Your task to perform on an android device: Do I have any events today? Image 0: 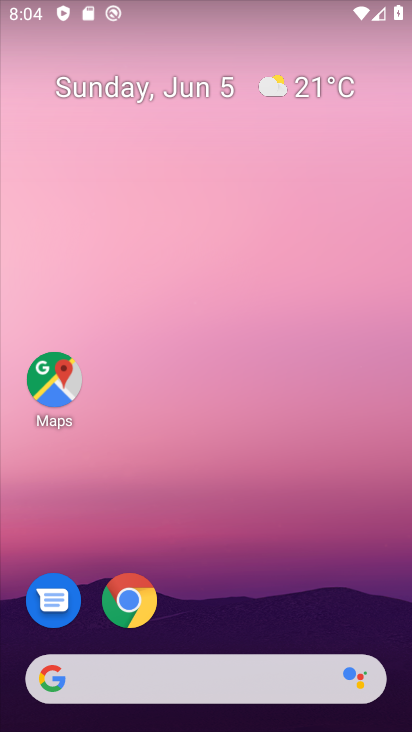
Step 0: drag from (245, 583) to (242, 9)
Your task to perform on an android device: Do I have any events today? Image 1: 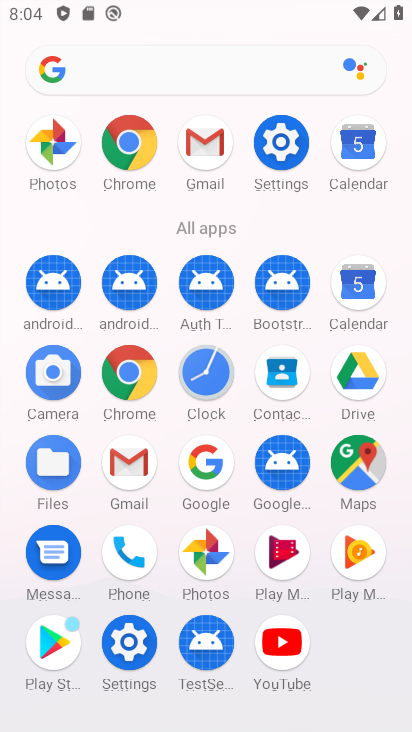
Step 1: click (366, 296)
Your task to perform on an android device: Do I have any events today? Image 2: 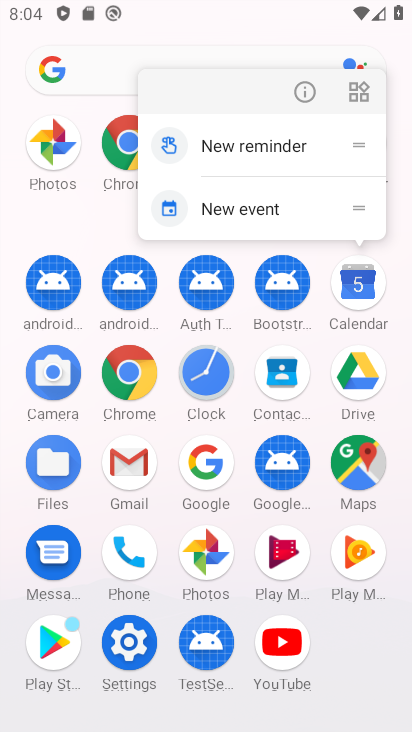
Step 2: click (361, 296)
Your task to perform on an android device: Do I have any events today? Image 3: 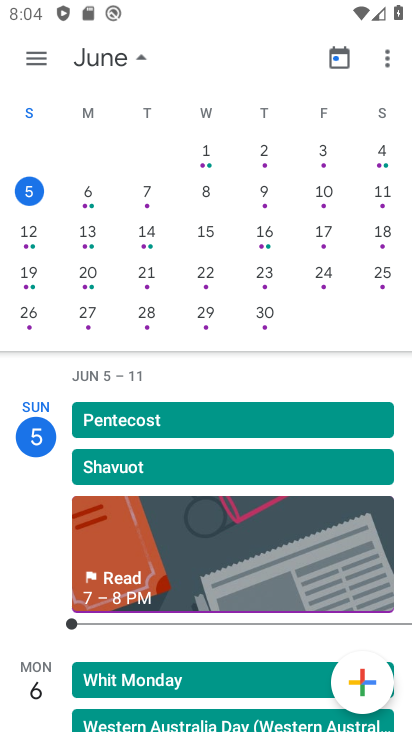
Step 3: click (33, 183)
Your task to perform on an android device: Do I have any events today? Image 4: 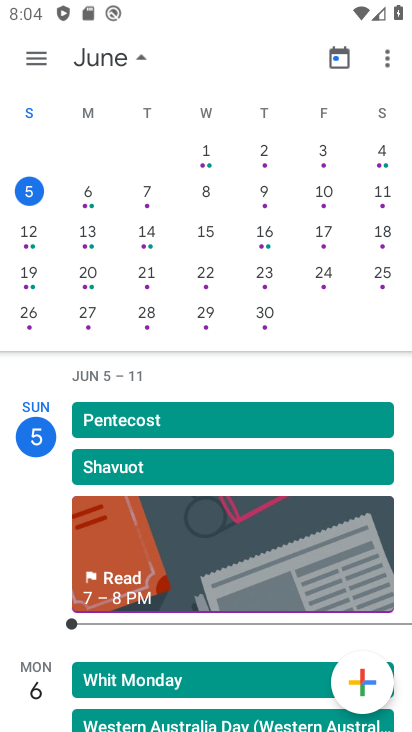
Step 4: task complete